Your task to perform on an android device: check android version Image 0: 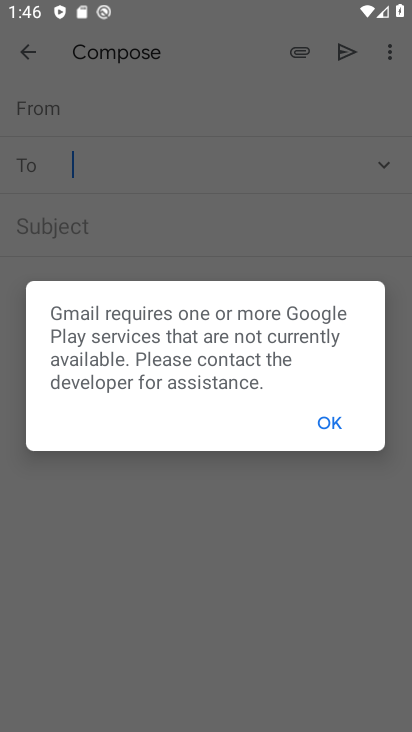
Step 0: drag from (248, 614) to (249, 179)
Your task to perform on an android device: check android version Image 1: 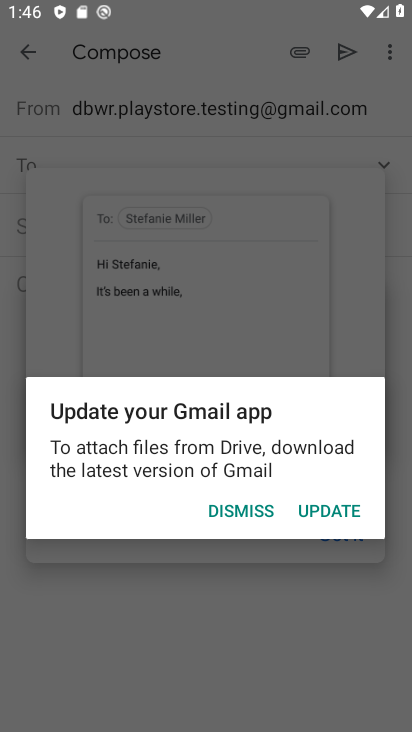
Step 1: task complete